Your task to perform on an android device: When is my next appointment? Image 0: 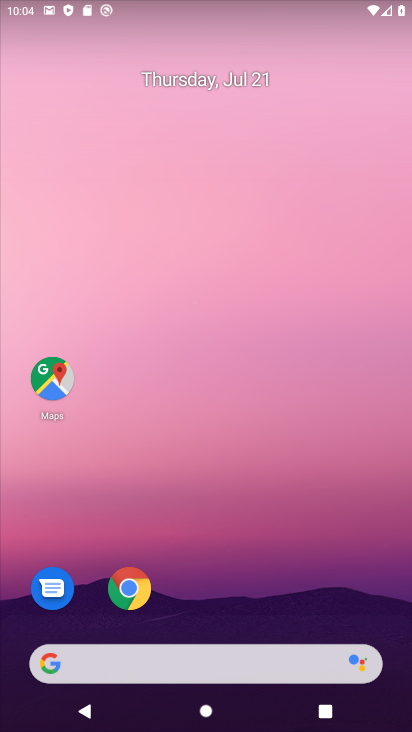
Step 0: drag from (194, 589) to (255, 41)
Your task to perform on an android device: When is my next appointment? Image 1: 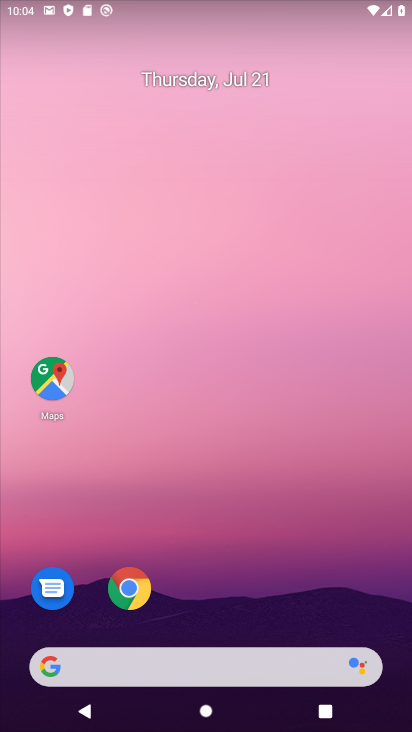
Step 1: drag from (200, 565) to (224, 164)
Your task to perform on an android device: When is my next appointment? Image 2: 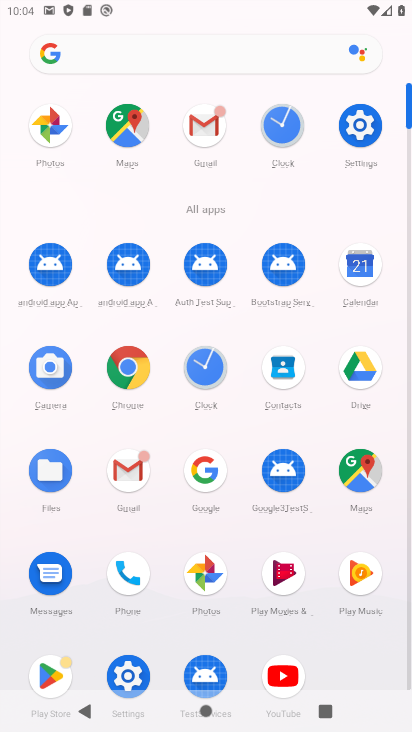
Step 2: click (354, 266)
Your task to perform on an android device: When is my next appointment? Image 3: 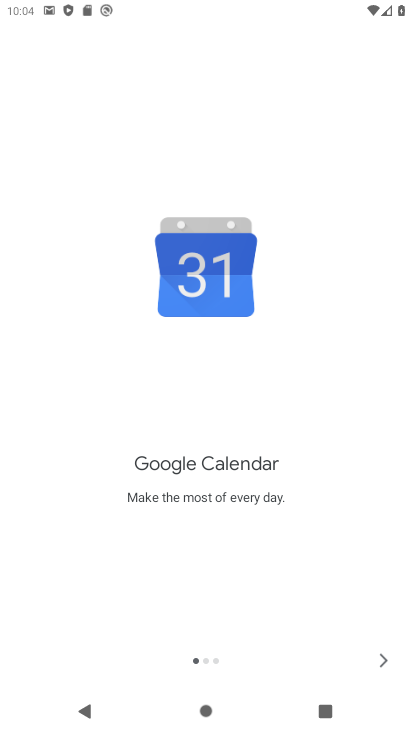
Step 3: drag from (234, 588) to (334, 157)
Your task to perform on an android device: When is my next appointment? Image 4: 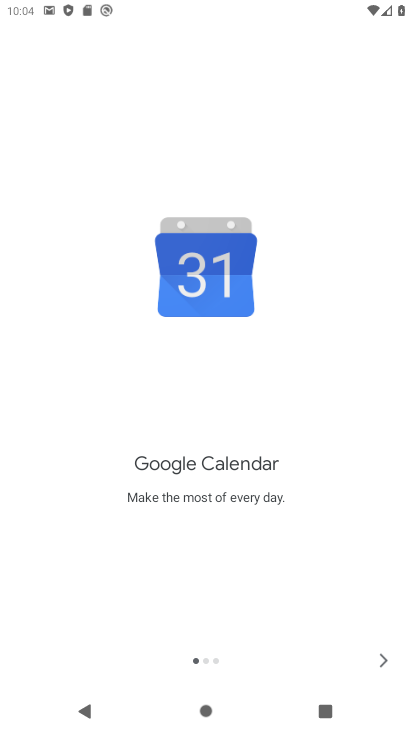
Step 4: click (383, 645)
Your task to perform on an android device: When is my next appointment? Image 5: 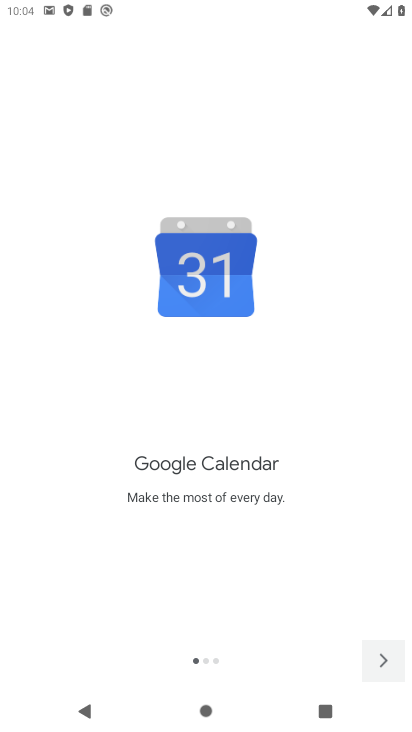
Step 5: click (383, 652)
Your task to perform on an android device: When is my next appointment? Image 6: 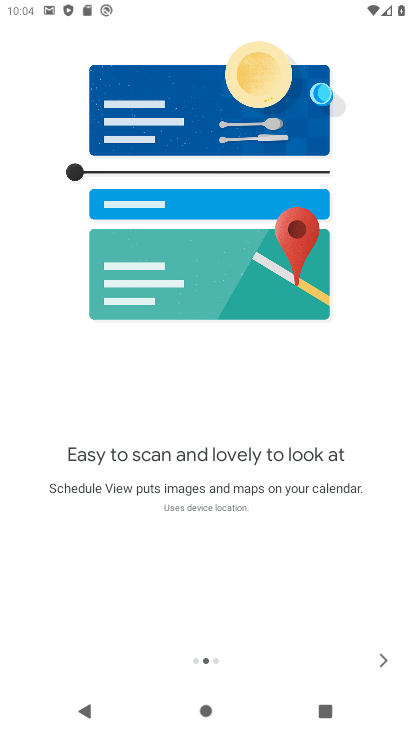
Step 6: click (383, 652)
Your task to perform on an android device: When is my next appointment? Image 7: 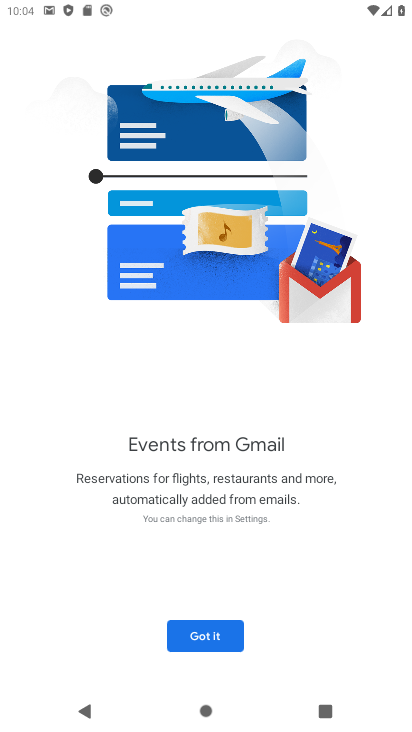
Step 7: click (383, 652)
Your task to perform on an android device: When is my next appointment? Image 8: 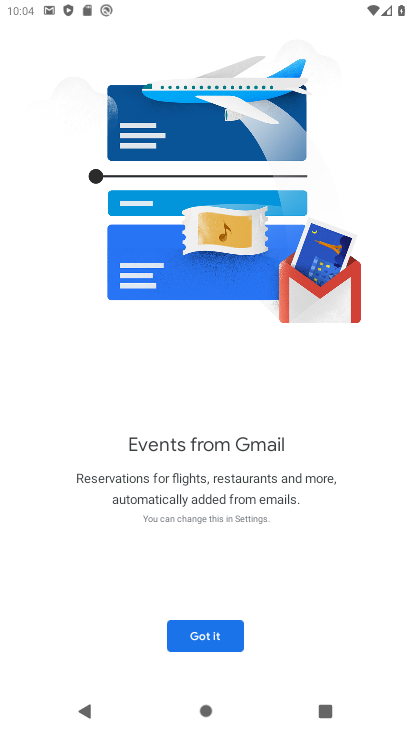
Step 8: click (221, 638)
Your task to perform on an android device: When is my next appointment? Image 9: 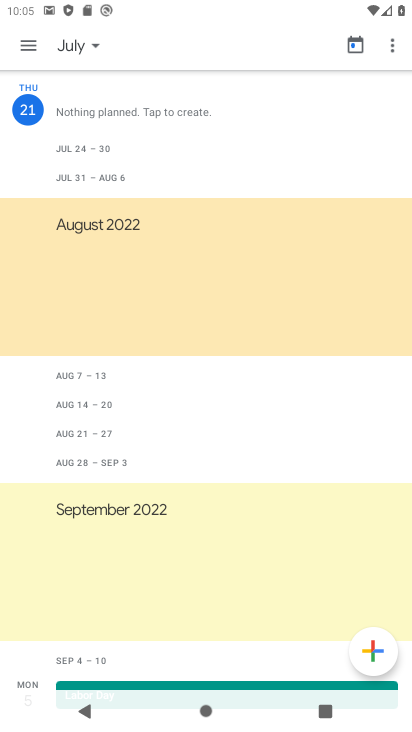
Step 9: click (94, 50)
Your task to perform on an android device: When is my next appointment? Image 10: 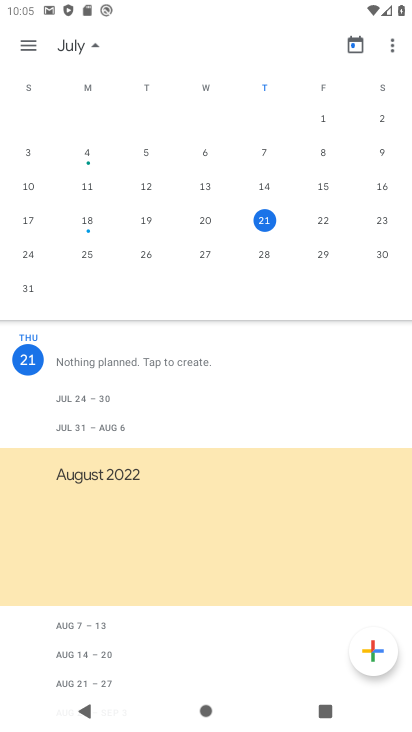
Step 10: click (270, 223)
Your task to perform on an android device: When is my next appointment? Image 11: 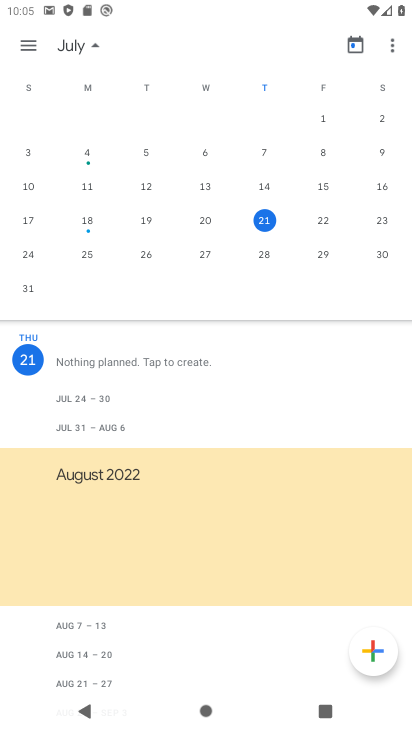
Step 11: task complete